Your task to perform on an android device: Open Wikipedia Image 0: 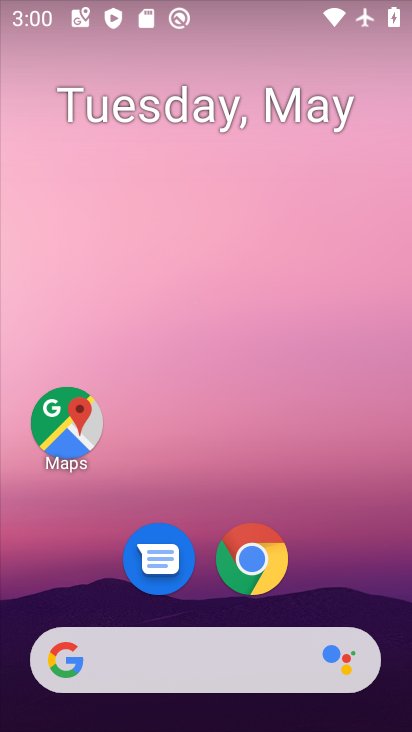
Step 0: drag from (165, 653) to (348, 90)
Your task to perform on an android device: Open Wikipedia Image 1: 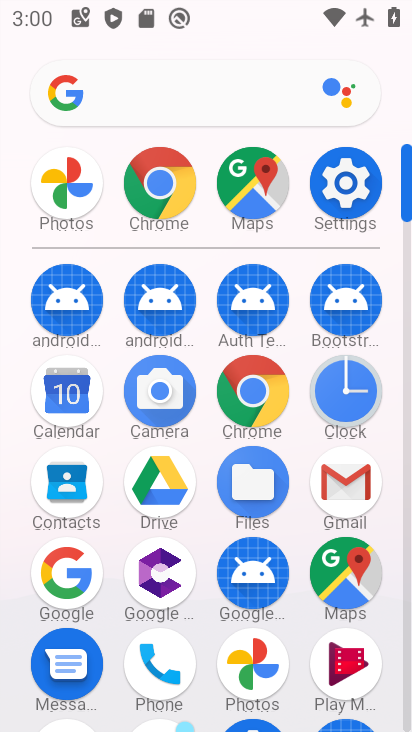
Step 1: click (174, 199)
Your task to perform on an android device: Open Wikipedia Image 2: 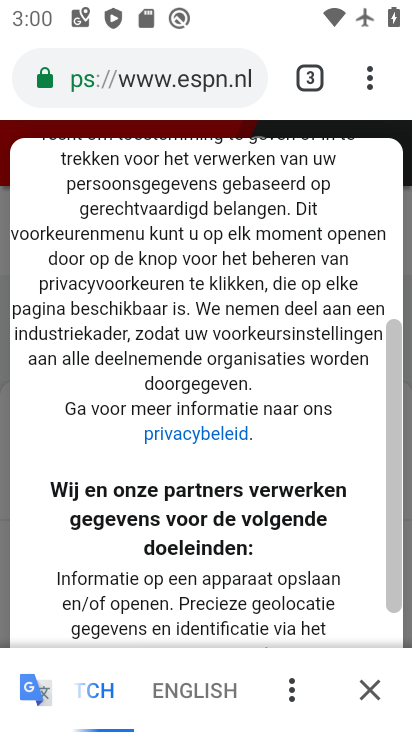
Step 2: drag from (367, 76) to (278, 141)
Your task to perform on an android device: Open Wikipedia Image 3: 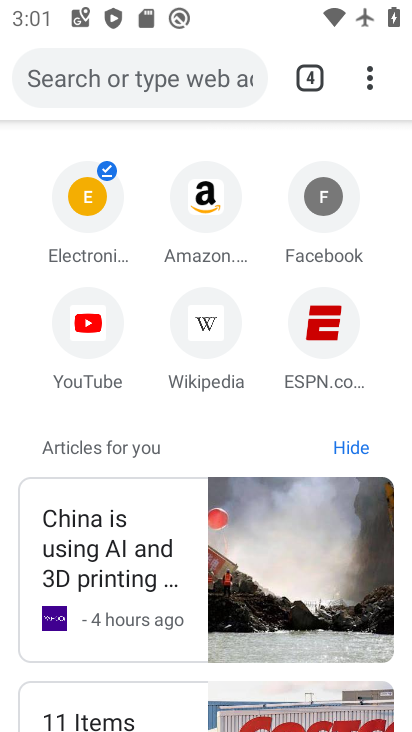
Step 3: click (207, 339)
Your task to perform on an android device: Open Wikipedia Image 4: 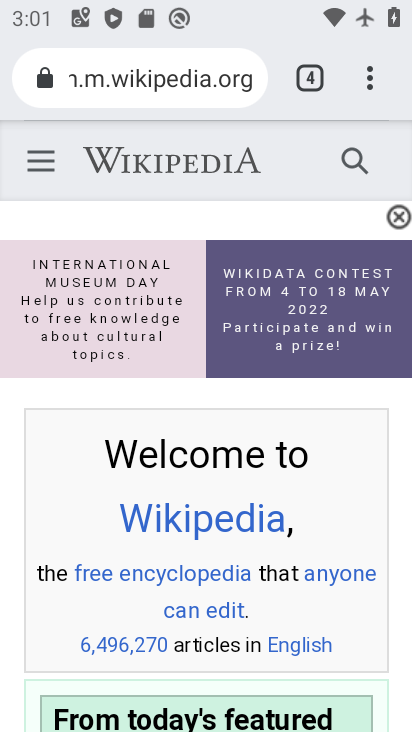
Step 4: task complete